Your task to perform on an android device: Open calendar and show me the third week of next month Image 0: 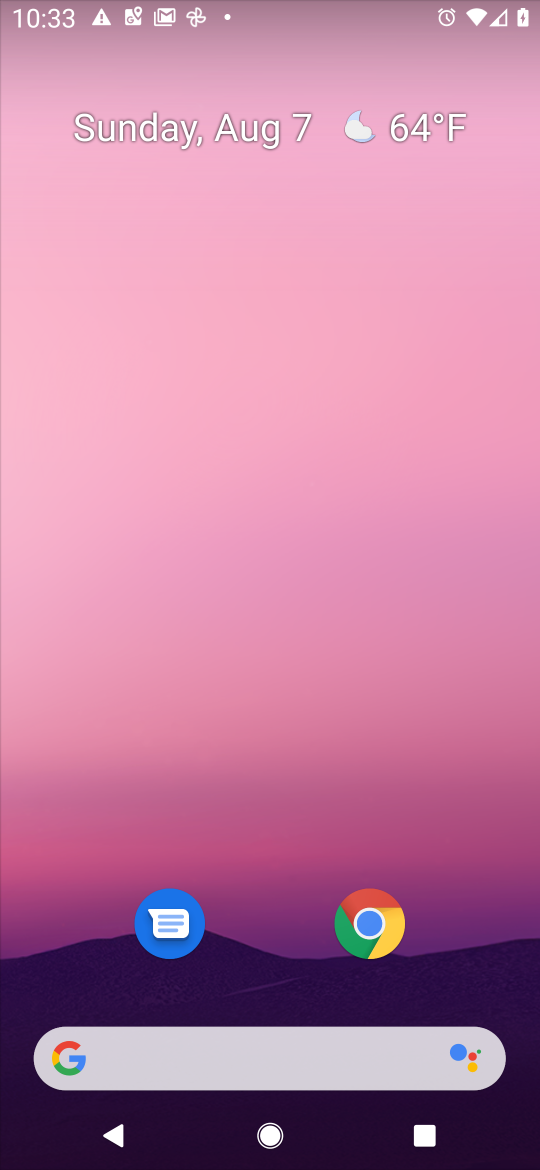
Step 0: drag from (494, 953) to (178, 107)
Your task to perform on an android device: Open calendar and show me the third week of next month Image 1: 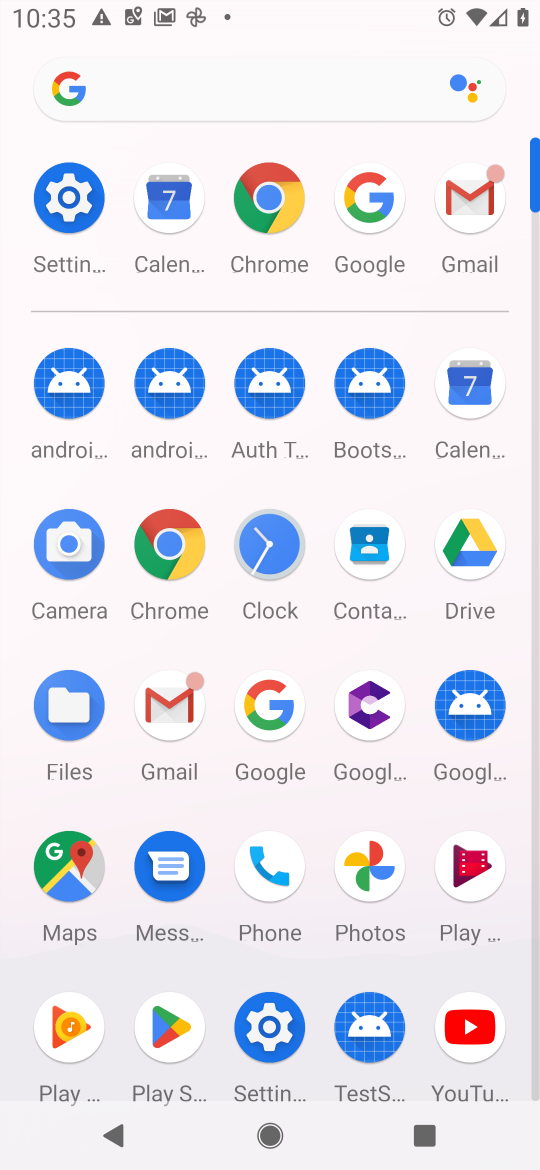
Step 1: click (477, 404)
Your task to perform on an android device: Open calendar and show me the third week of next month Image 2: 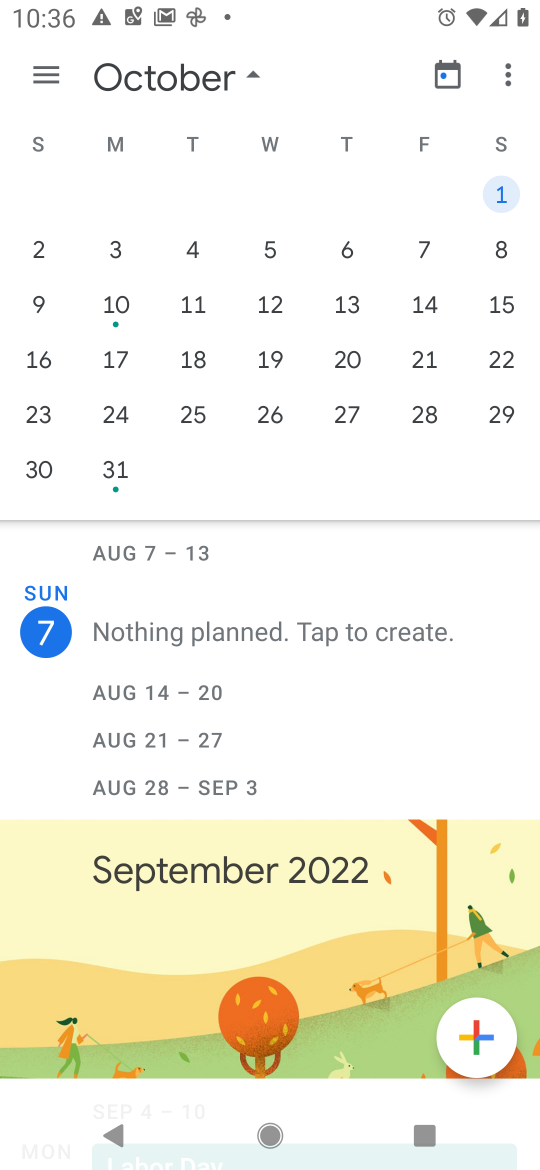
Step 2: drag from (502, 292) to (68, 320)
Your task to perform on an android device: Open calendar and show me the third week of next month Image 3: 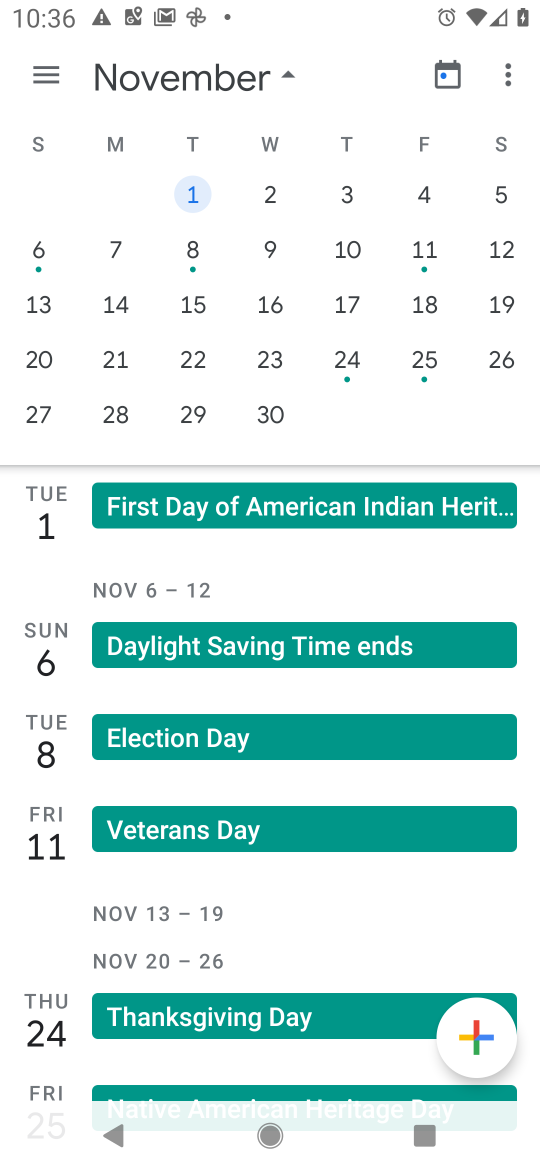
Step 3: click (36, 355)
Your task to perform on an android device: Open calendar and show me the third week of next month Image 4: 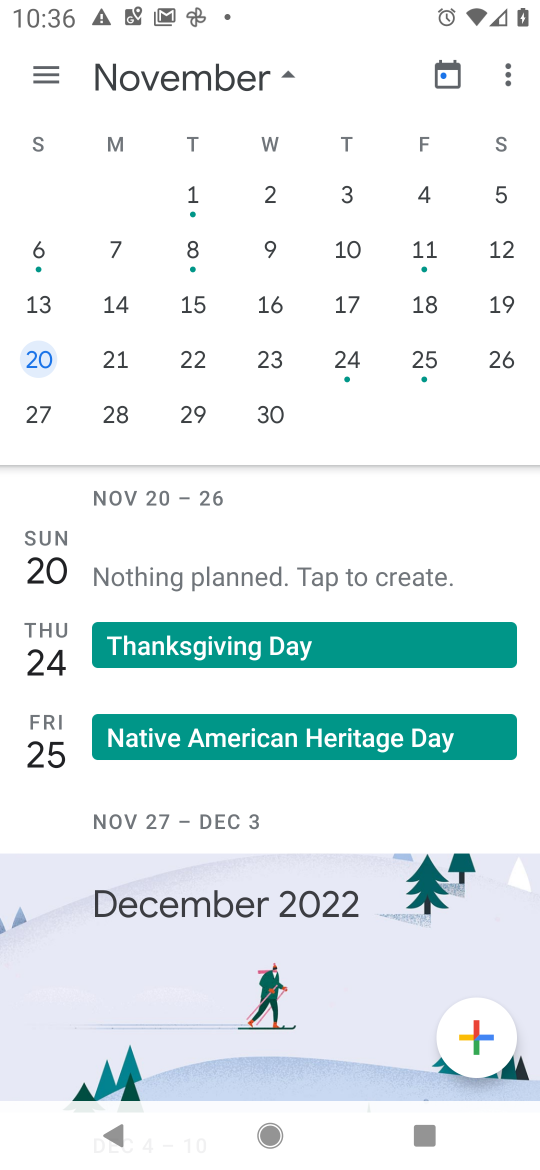
Step 4: task complete